Your task to perform on an android device: toggle airplane mode Image 0: 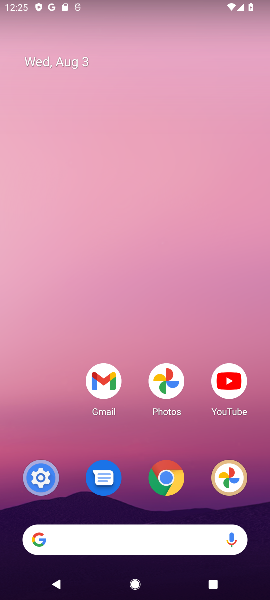
Step 0: drag from (80, 461) to (128, 13)
Your task to perform on an android device: toggle airplane mode Image 1: 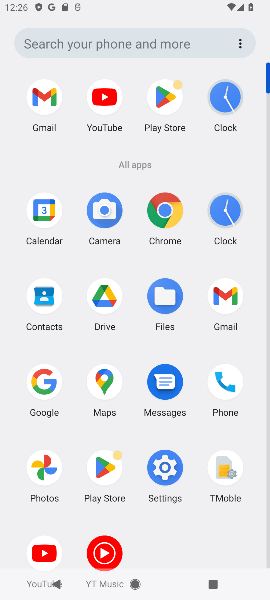
Step 1: click (165, 465)
Your task to perform on an android device: toggle airplane mode Image 2: 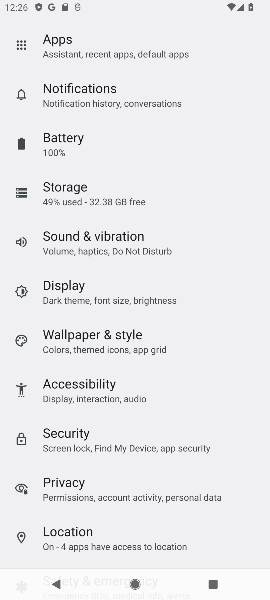
Step 2: press back button
Your task to perform on an android device: toggle airplane mode Image 3: 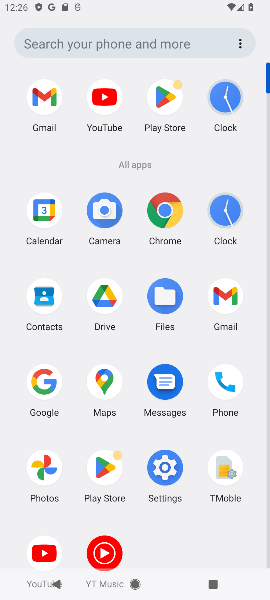
Step 3: click (166, 478)
Your task to perform on an android device: toggle airplane mode Image 4: 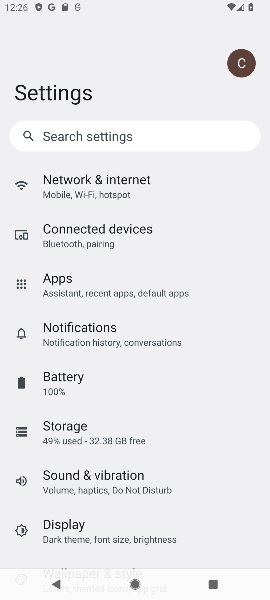
Step 4: click (121, 193)
Your task to perform on an android device: toggle airplane mode Image 5: 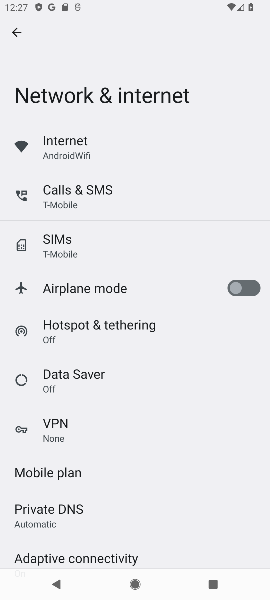
Step 5: click (252, 294)
Your task to perform on an android device: toggle airplane mode Image 6: 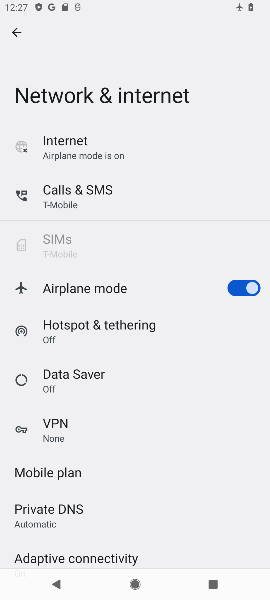
Step 6: task complete